Your task to perform on an android device: open app "Messenger Lite" Image 0: 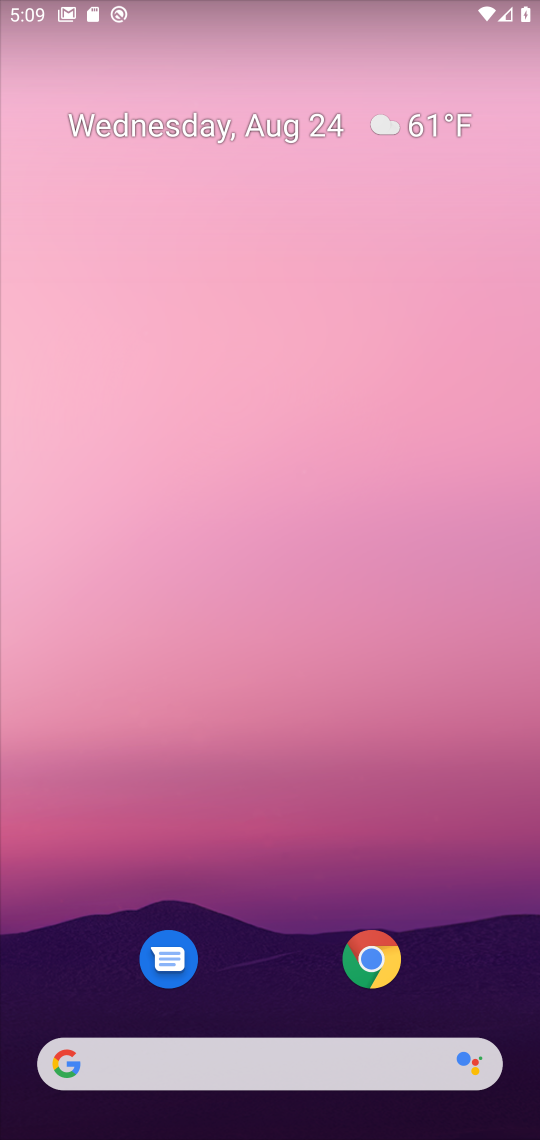
Step 0: drag from (250, 720) to (255, 250)
Your task to perform on an android device: open app "Messenger Lite" Image 1: 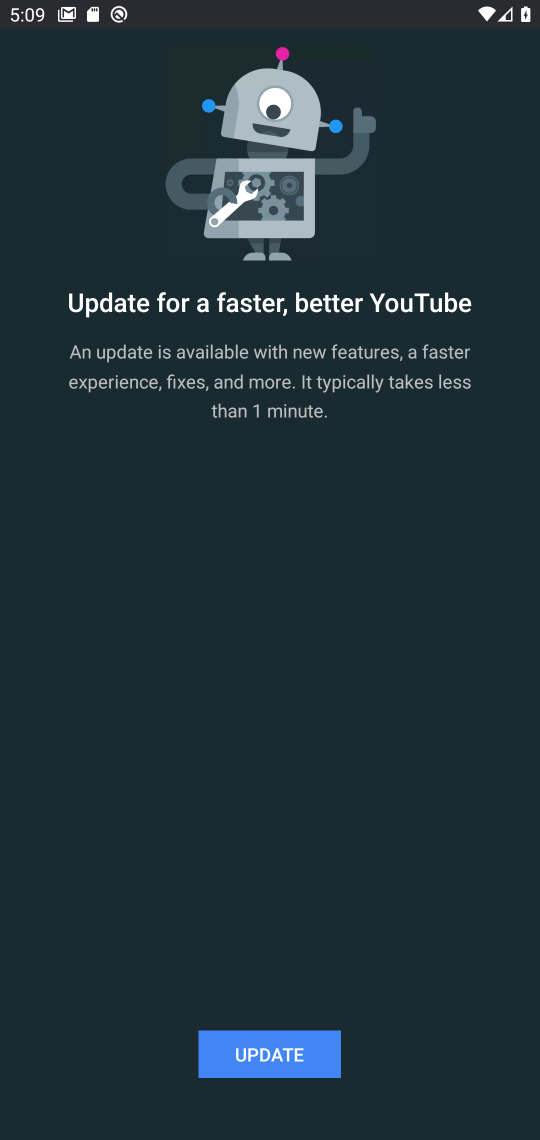
Step 1: press home button
Your task to perform on an android device: open app "Messenger Lite" Image 2: 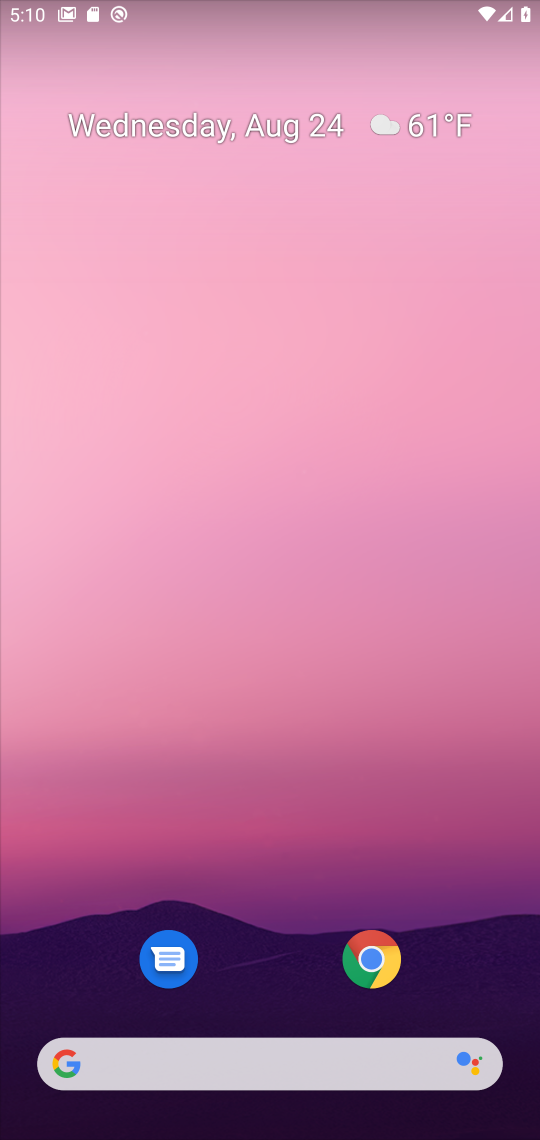
Step 2: drag from (211, 1036) to (211, 367)
Your task to perform on an android device: open app "Messenger Lite" Image 3: 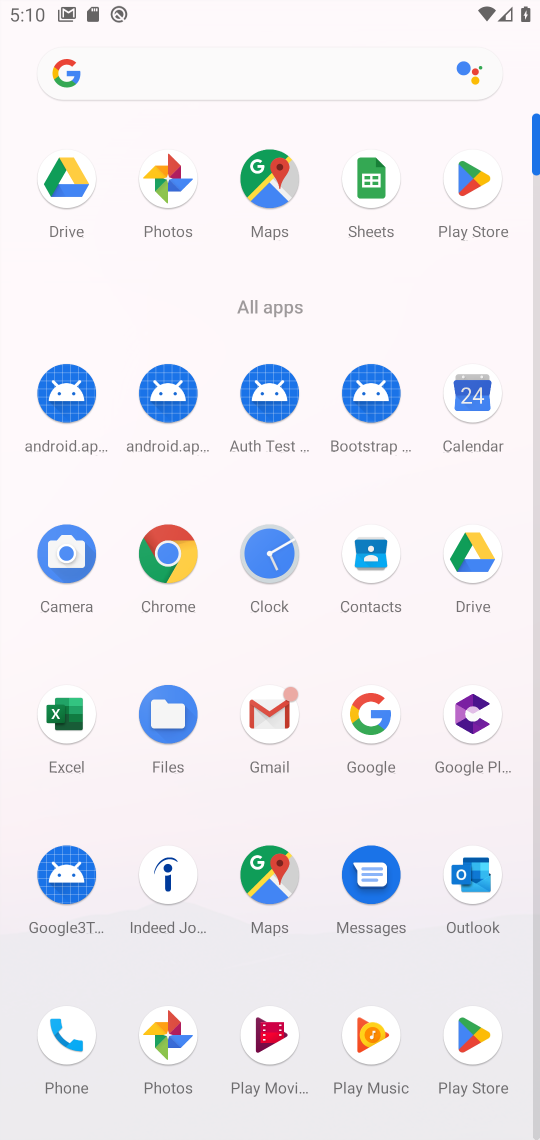
Step 3: click (471, 186)
Your task to perform on an android device: open app "Messenger Lite" Image 4: 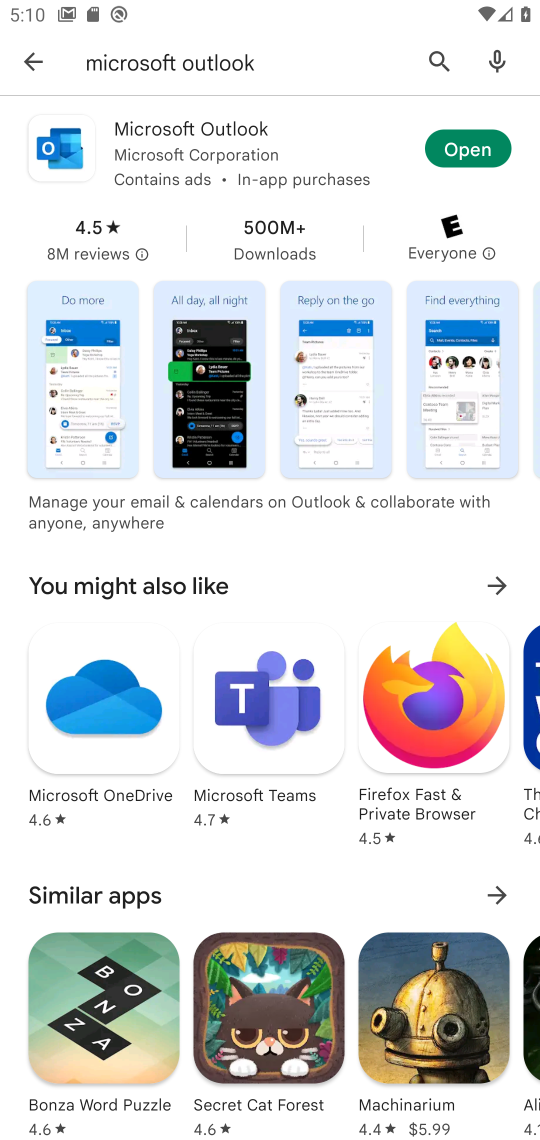
Step 4: click (436, 61)
Your task to perform on an android device: open app "Messenger Lite" Image 5: 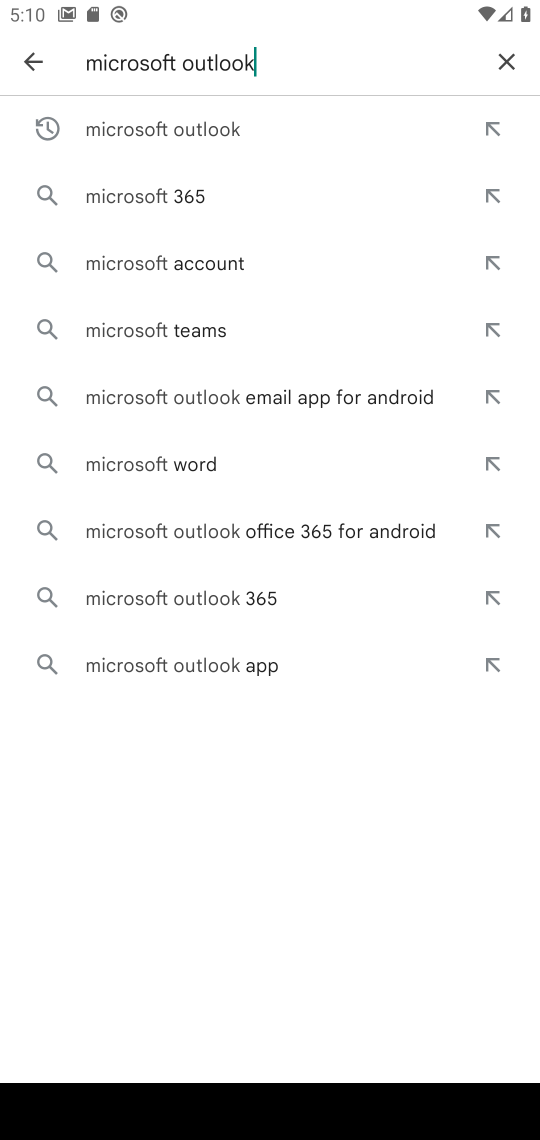
Step 5: click (495, 64)
Your task to perform on an android device: open app "Messenger Lite" Image 6: 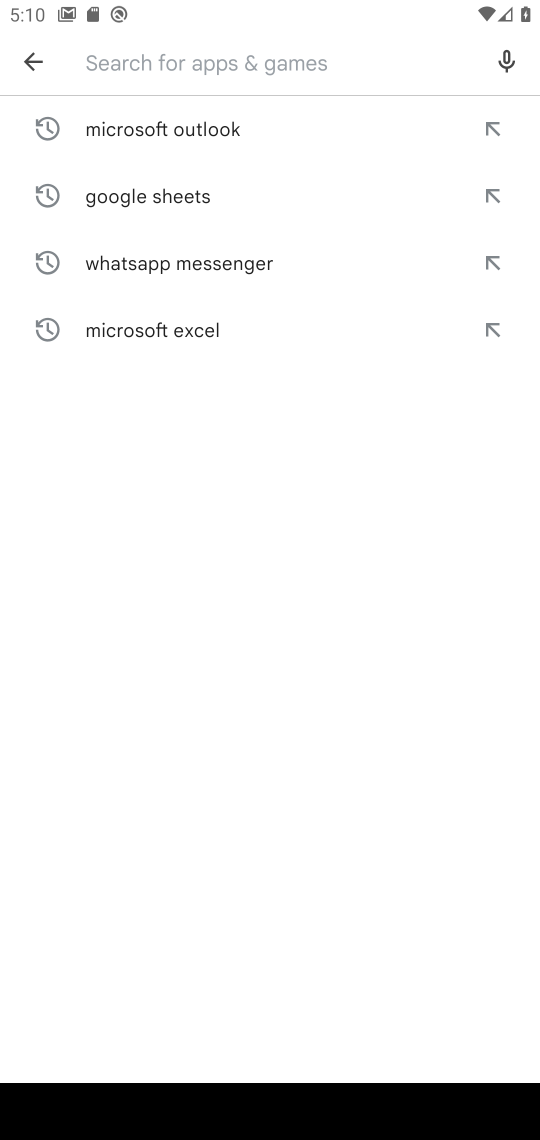
Step 6: type "Messenger Lite"
Your task to perform on an android device: open app "Messenger Lite" Image 7: 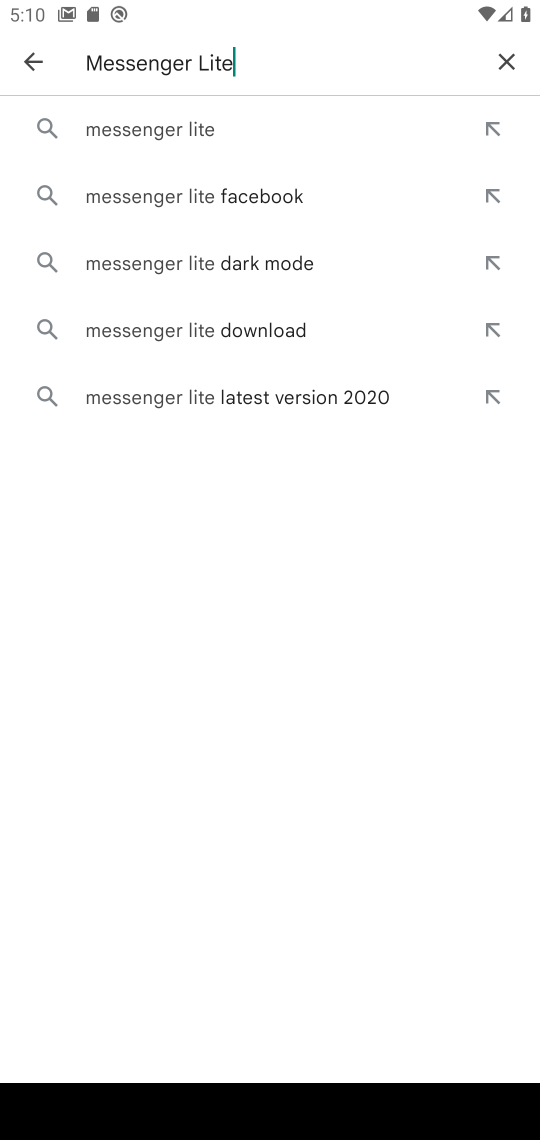
Step 7: click (191, 124)
Your task to perform on an android device: open app "Messenger Lite" Image 8: 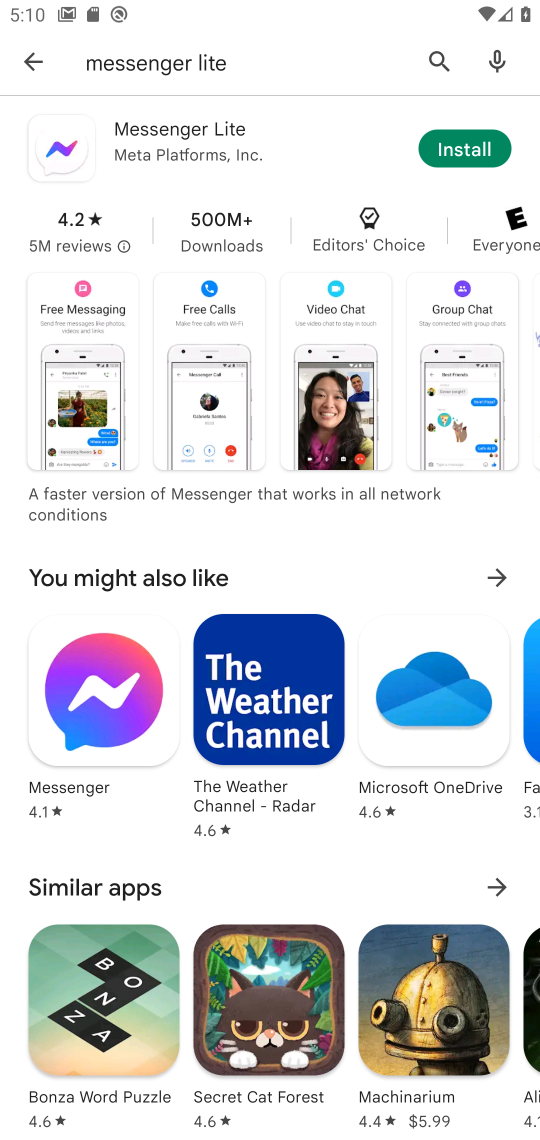
Step 8: click (500, 146)
Your task to perform on an android device: open app "Messenger Lite" Image 9: 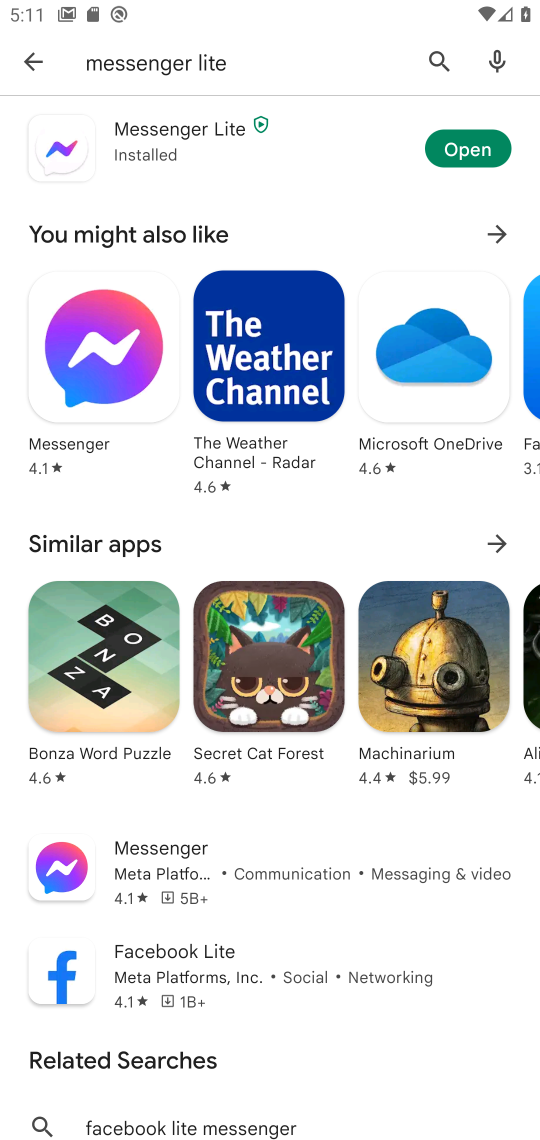
Step 9: click (455, 162)
Your task to perform on an android device: open app "Messenger Lite" Image 10: 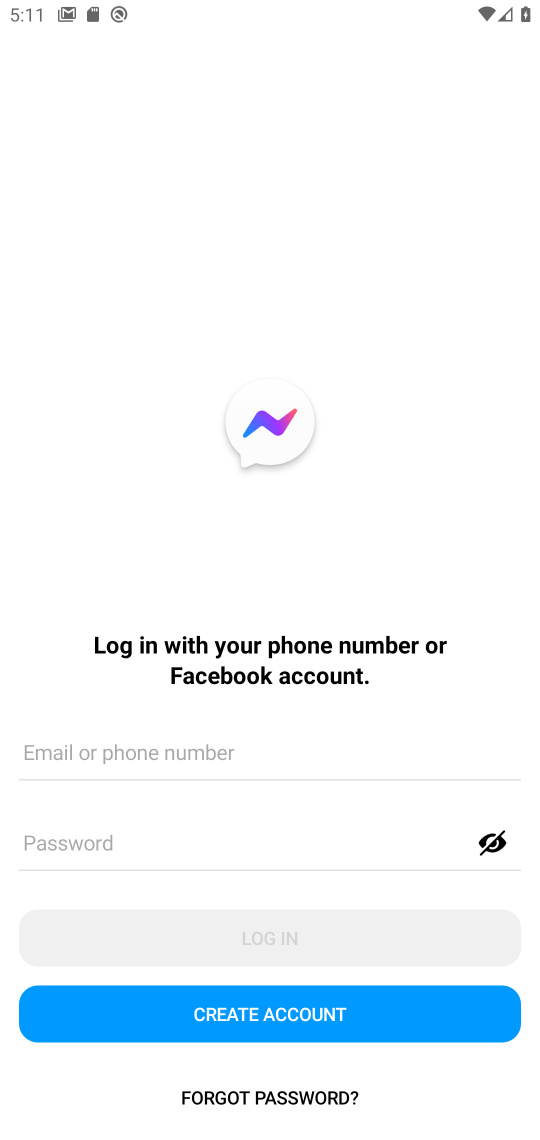
Step 10: task complete